Your task to perform on an android device: Open Android settings Image 0: 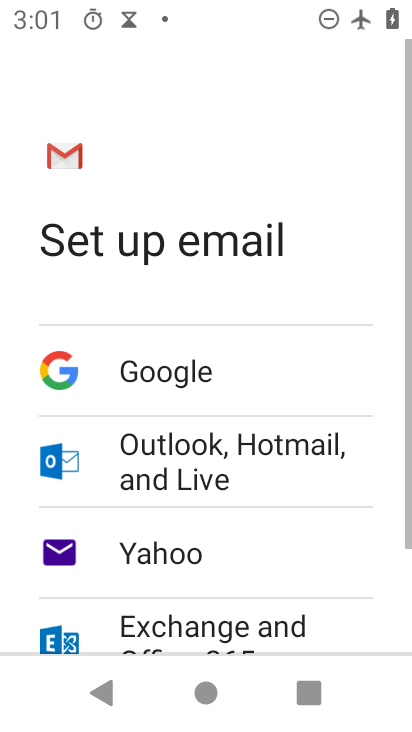
Step 0: press home button
Your task to perform on an android device: Open Android settings Image 1: 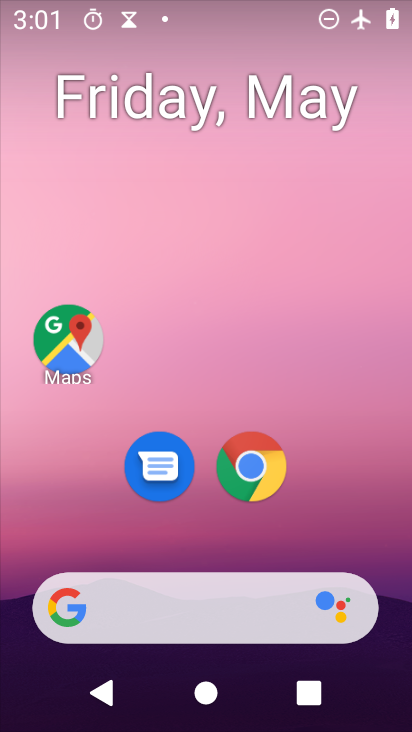
Step 1: drag from (328, 468) to (336, 4)
Your task to perform on an android device: Open Android settings Image 2: 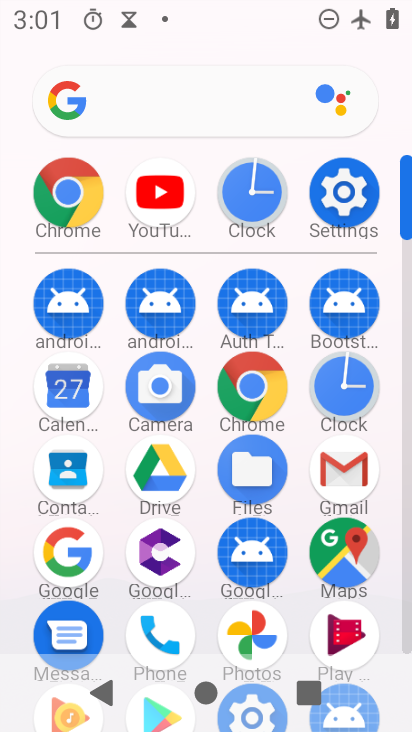
Step 2: click (341, 197)
Your task to perform on an android device: Open Android settings Image 3: 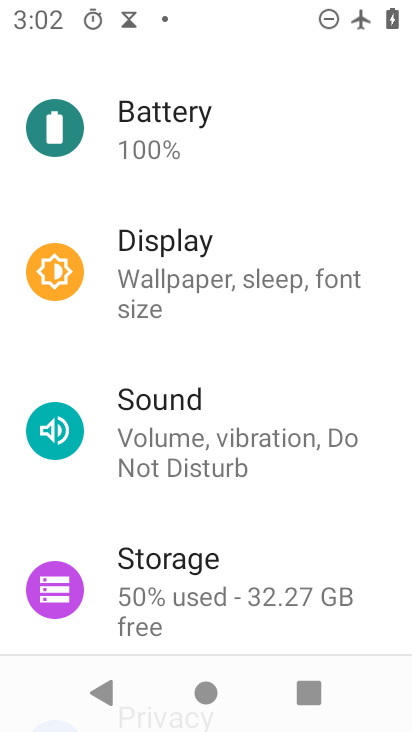
Step 3: task complete